Your task to perform on an android device: toggle javascript in the chrome app Image 0: 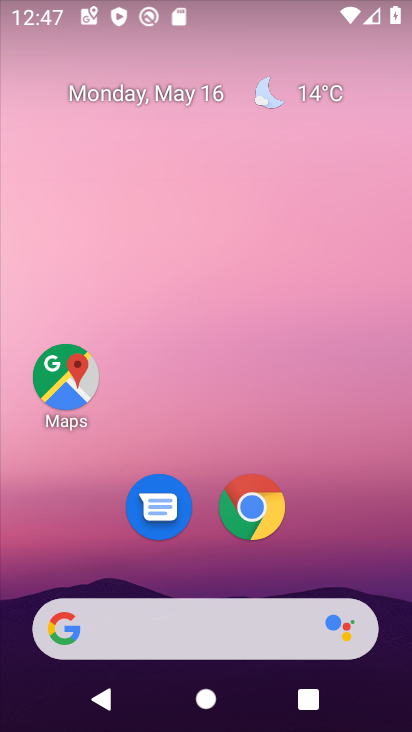
Step 0: drag from (234, 549) to (280, 205)
Your task to perform on an android device: toggle javascript in the chrome app Image 1: 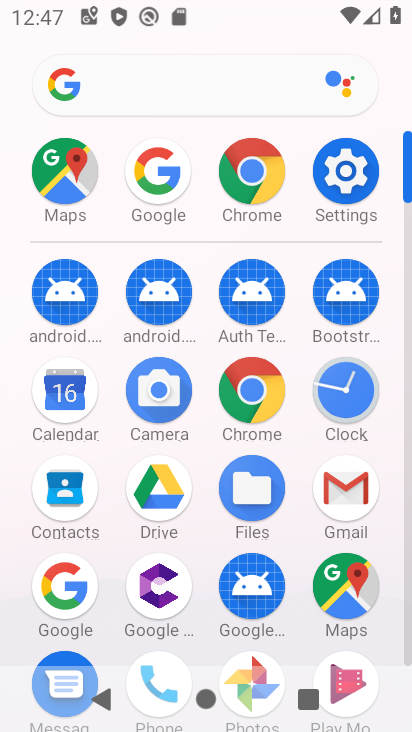
Step 1: click (261, 387)
Your task to perform on an android device: toggle javascript in the chrome app Image 2: 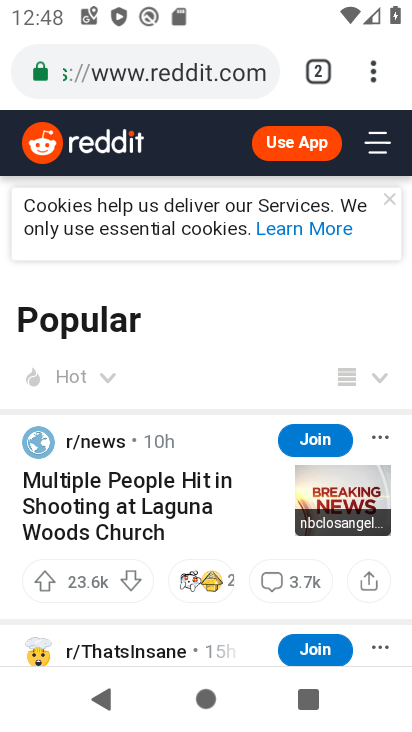
Step 2: click (376, 75)
Your task to perform on an android device: toggle javascript in the chrome app Image 3: 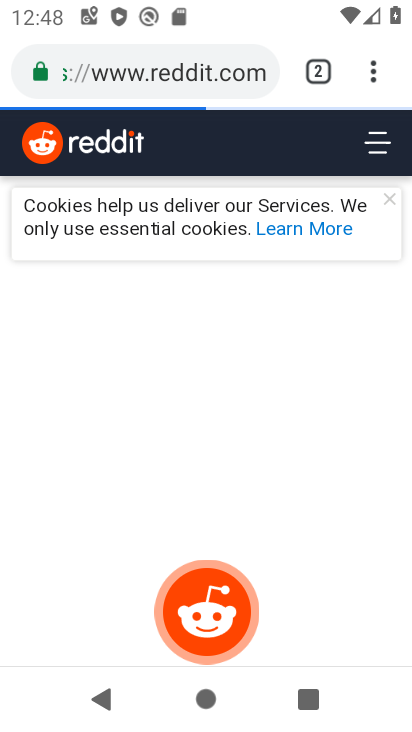
Step 3: click (367, 81)
Your task to perform on an android device: toggle javascript in the chrome app Image 4: 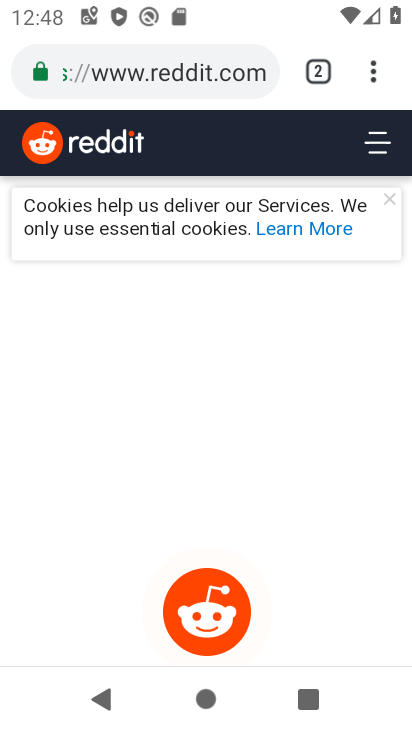
Step 4: click (366, 71)
Your task to perform on an android device: toggle javascript in the chrome app Image 5: 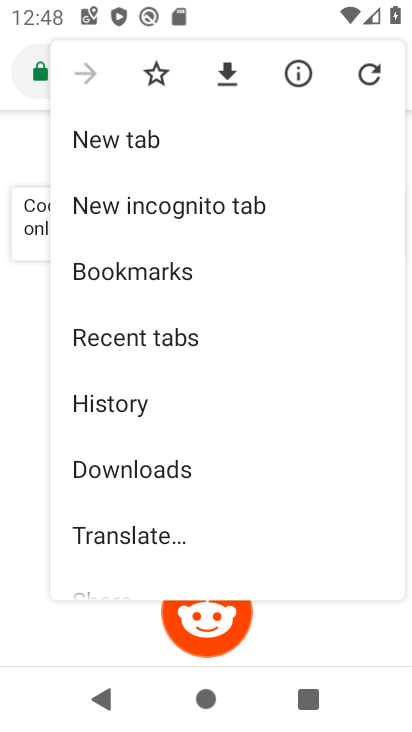
Step 5: drag from (177, 514) to (234, 200)
Your task to perform on an android device: toggle javascript in the chrome app Image 6: 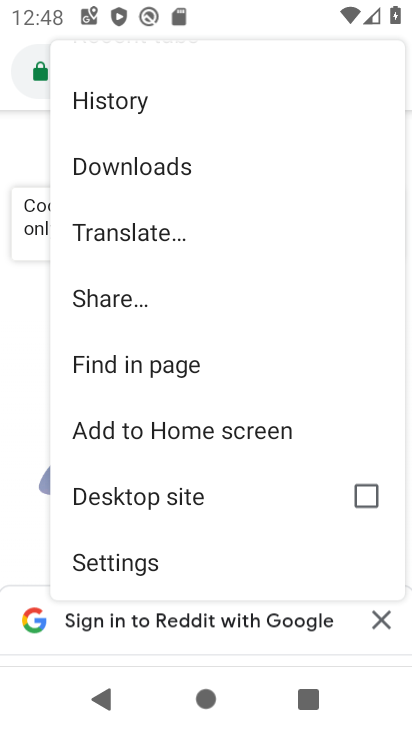
Step 6: click (150, 560)
Your task to perform on an android device: toggle javascript in the chrome app Image 7: 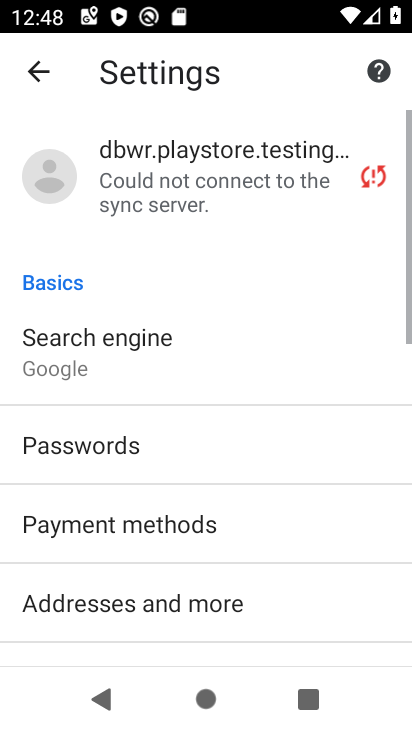
Step 7: drag from (241, 479) to (303, 157)
Your task to perform on an android device: toggle javascript in the chrome app Image 8: 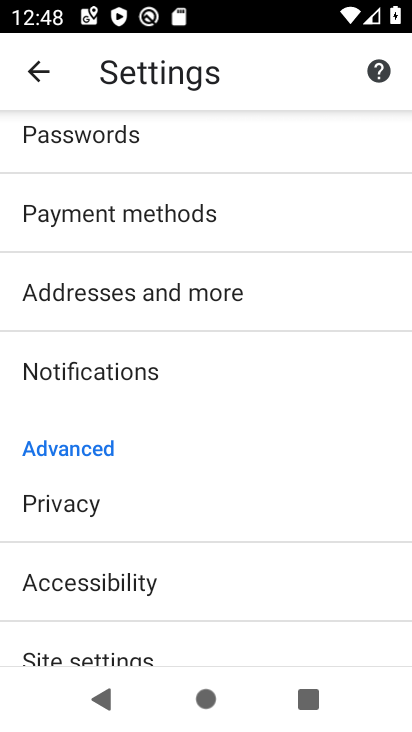
Step 8: drag from (187, 553) to (228, 352)
Your task to perform on an android device: toggle javascript in the chrome app Image 9: 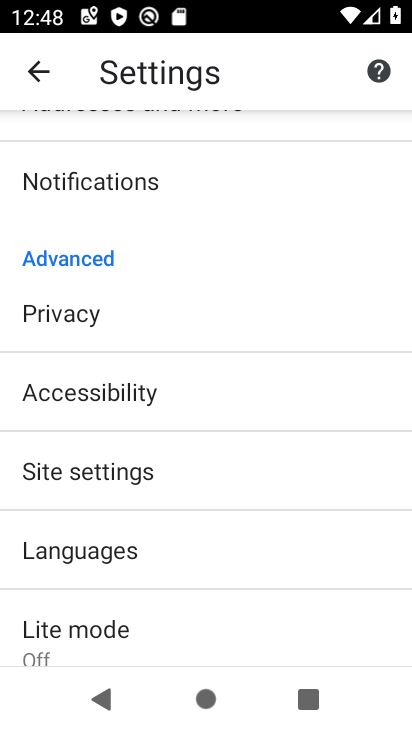
Step 9: click (148, 471)
Your task to perform on an android device: toggle javascript in the chrome app Image 10: 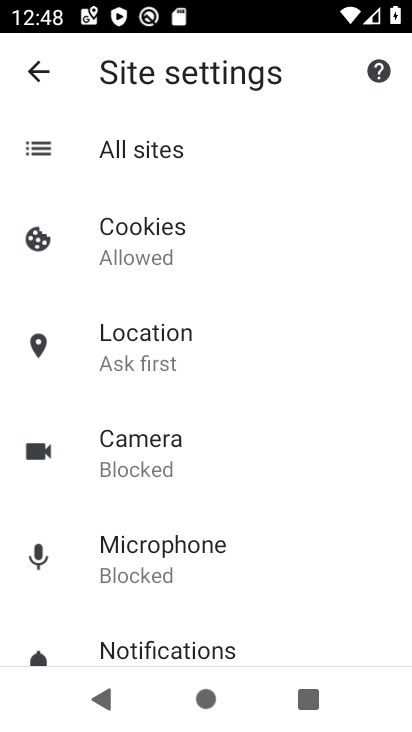
Step 10: drag from (220, 552) to (245, 261)
Your task to perform on an android device: toggle javascript in the chrome app Image 11: 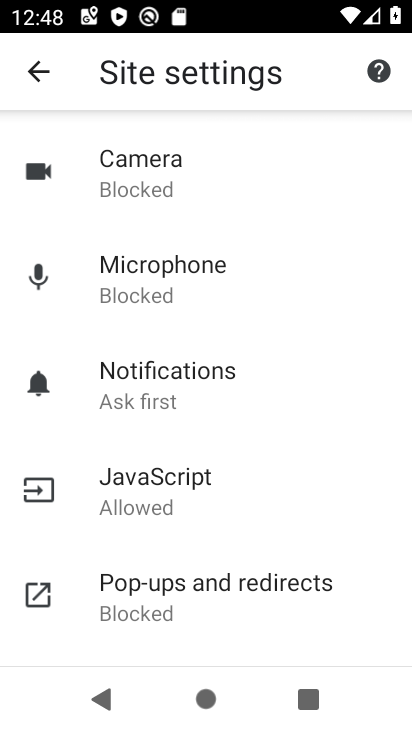
Step 11: click (196, 482)
Your task to perform on an android device: toggle javascript in the chrome app Image 12: 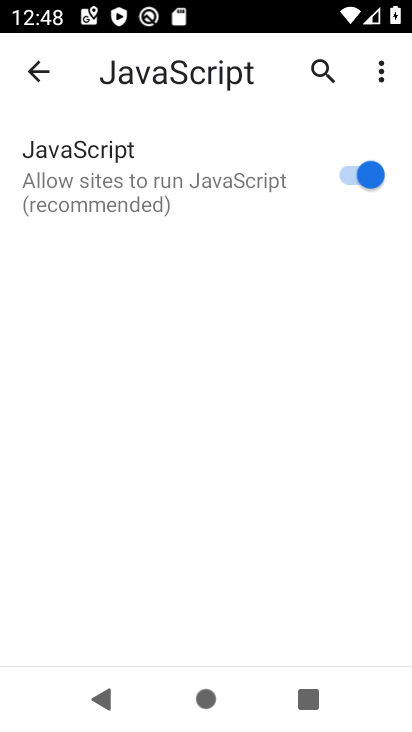
Step 12: click (365, 186)
Your task to perform on an android device: toggle javascript in the chrome app Image 13: 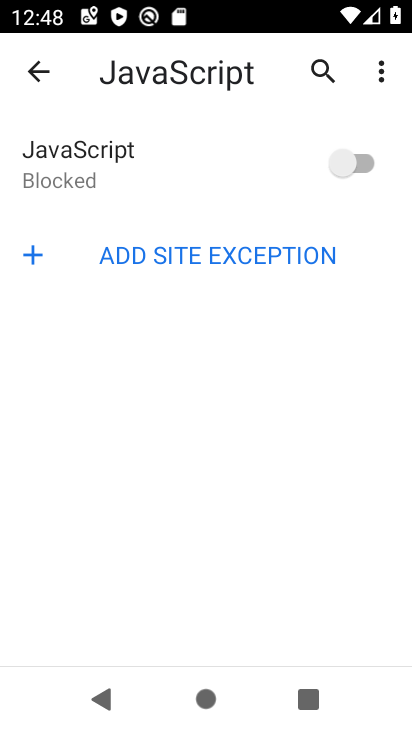
Step 13: task complete